Your task to perform on an android device: open device folders in google photos Image 0: 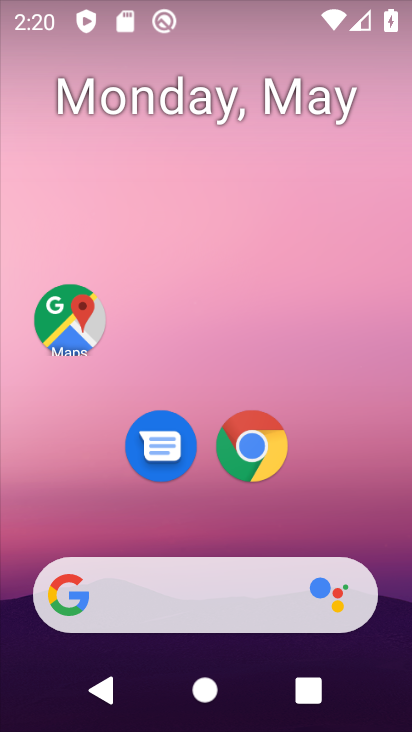
Step 0: drag from (206, 517) to (198, 141)
Your task to perform on an android device: open device folders in google photos Image 1: 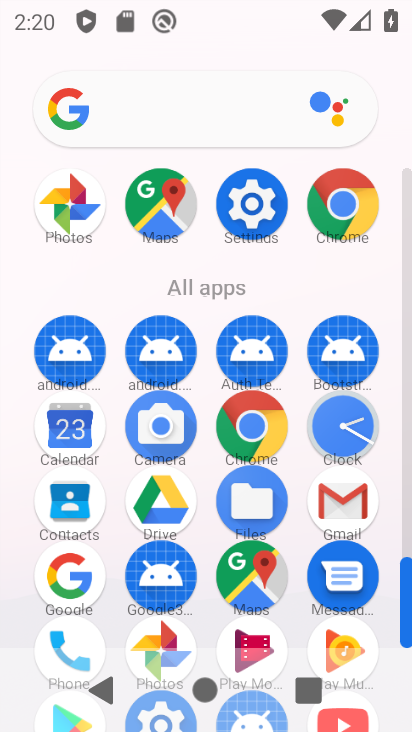
Step 1: click (66, 215)
Your task to perform on an android device: open device folders in google photos Image 2: 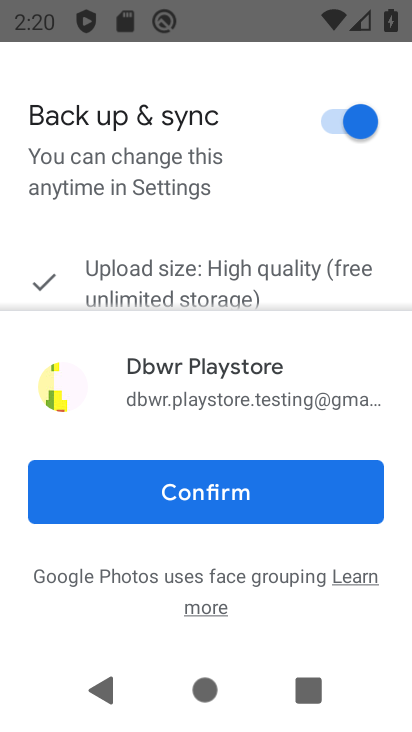
Step 2: click (194, 485)
Your task to perform on an android device: open device folders in google photos Image 3: 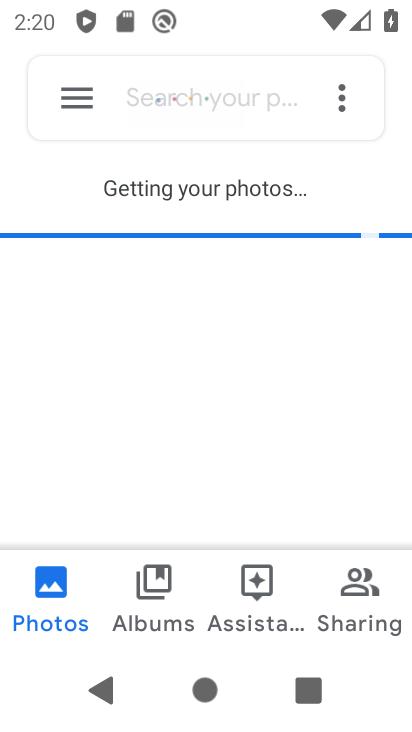
Step 3: click (70, 100)
Your task to perform on an android device: open device folders in google photos Image 4: 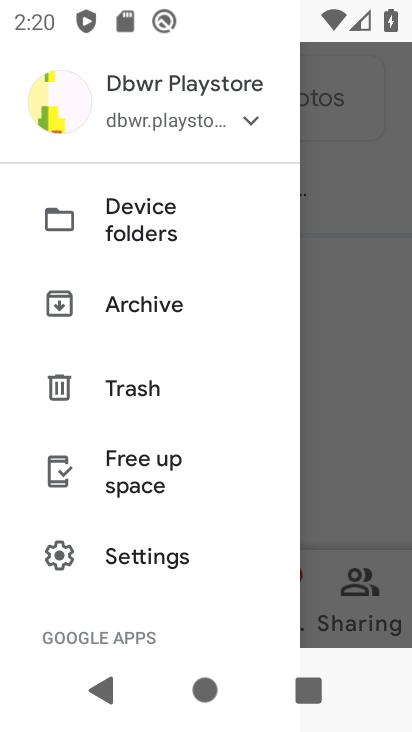
Step 4: click (139, 213)
Your task to perform on an android device: open device folders in google photos Image 5: 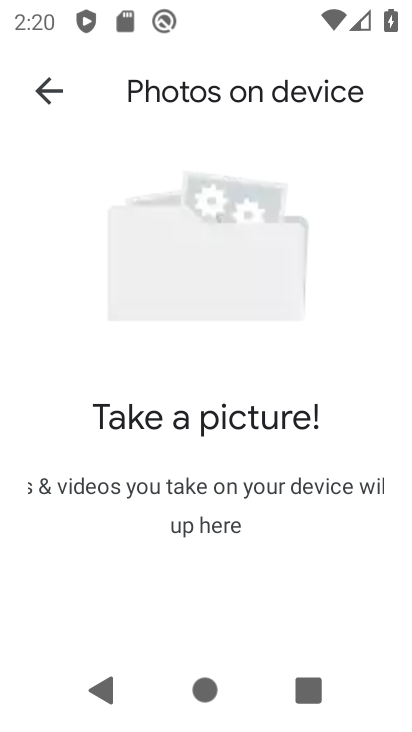
Step 5: task complete